Your task to perform on an android device: turn on bluetooth scan Image 0: 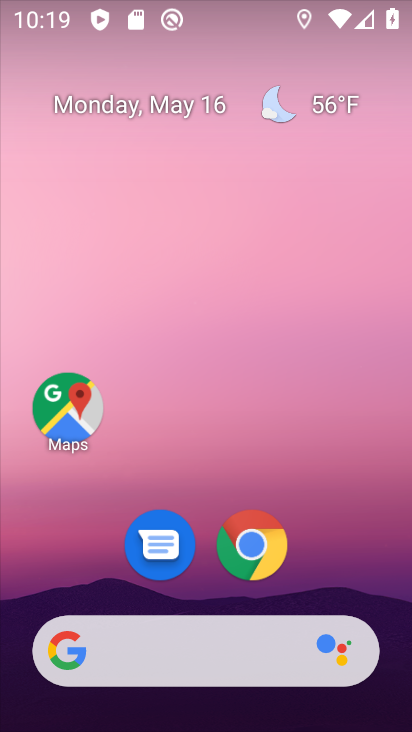
Step 0: drag from (216, 600) to (104, 62)
Your task to perform on an android device: turn on bluetooth scan Image 1: 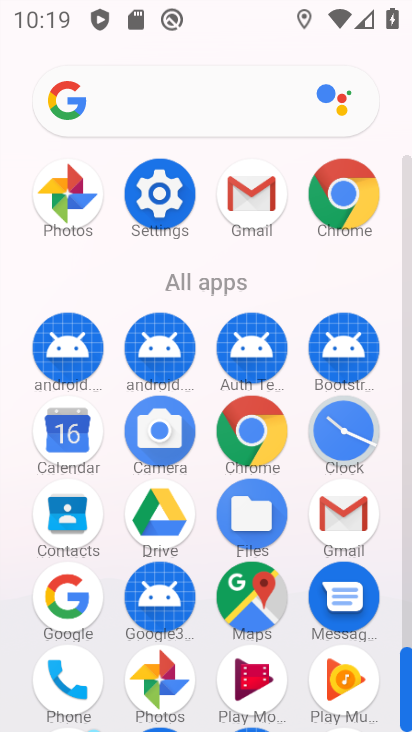
Step 1: click (139, 207)
Your task to perform on an android device: turn on bluetooth scan Image 2: 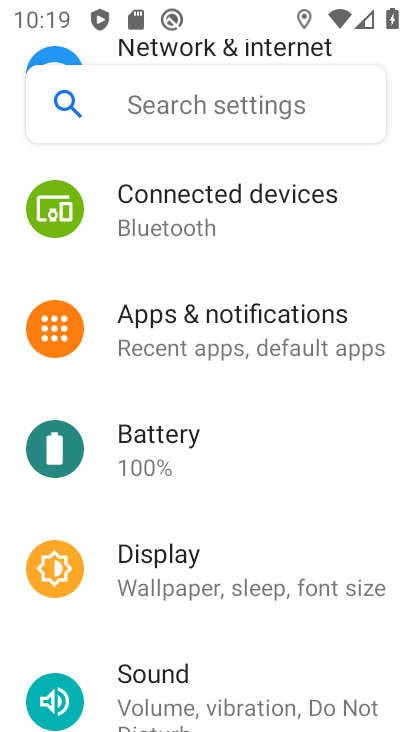
Step 2: drag from (205, 459) to (163, 42)
Your task to perform on an android device: turn on bluetooth scan Image 3: 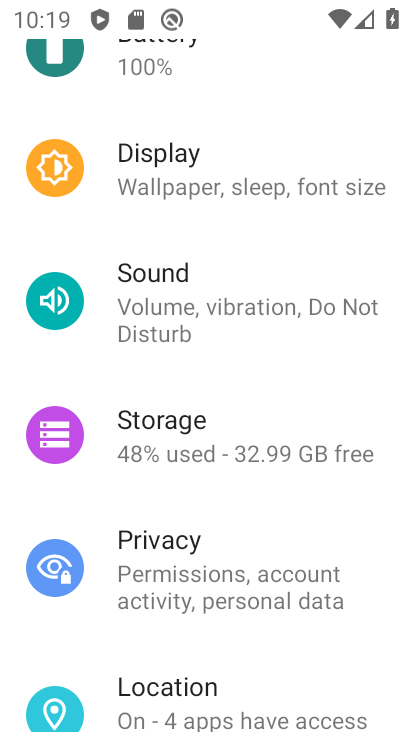
Step 3: click (173, 714)
Your task to perform on an android device: turn on bluetooth scan Image 4: 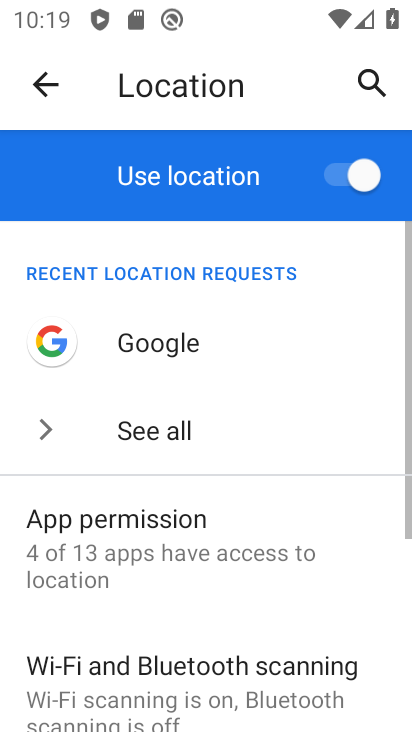
Step 4: click (222, 670)
Your task to perform on an android device: turn on bluetooth scan Image 5: 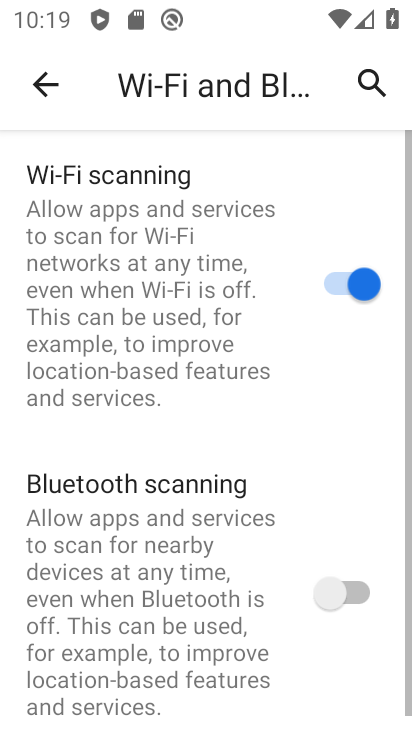
Step 5: click (355, 582)
Your task to perform on an android device: turn on bluetooth scan Image 6: 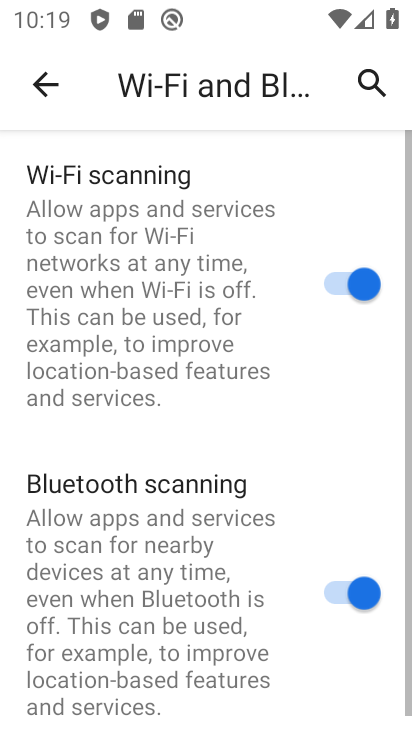
Step 6: task complete